Your task to perform on an android device: open app "HBO Max: Stream TV & Movies" (install if not already installed) Image 0: 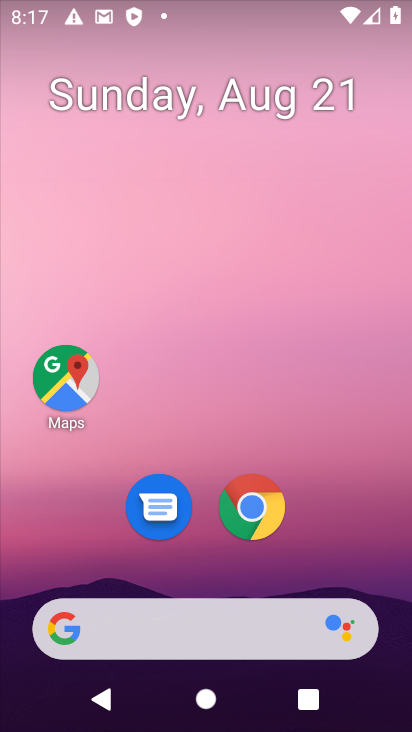
Step 0: drag from (229, 470) to (281, 11)
Your task to perform on an android device: open app "HBO Max: Stream TV & Movies" (install if not already installed) Image 1: 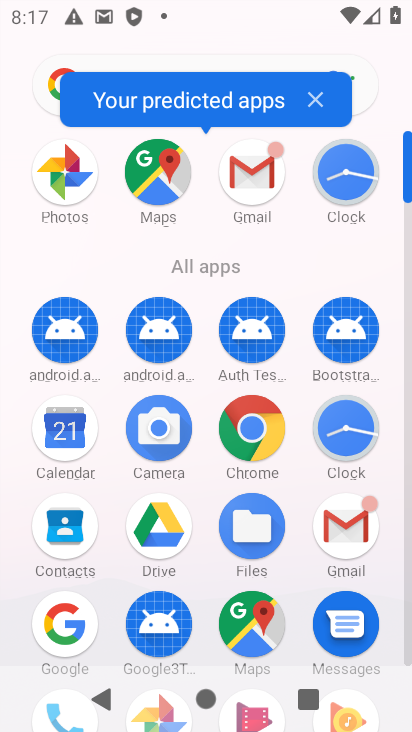
Step 1: drag from (116, 561) to (138, 352)
Your task to perform on an android device: open app "HBO Max: Stream TV & Movies" (install if not already installed) Image 2: 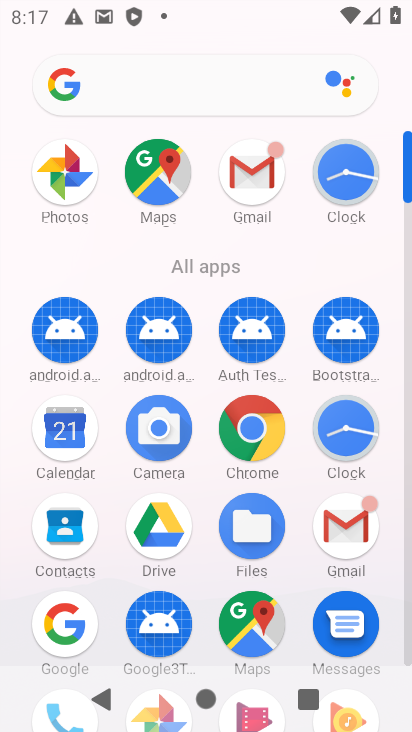
Step 2: drag from (113, 617) to (191, 0)
Your task to perform on an android device: open app "HBO Max: Stream TV & Movies" (install if not already installed) Image 3: 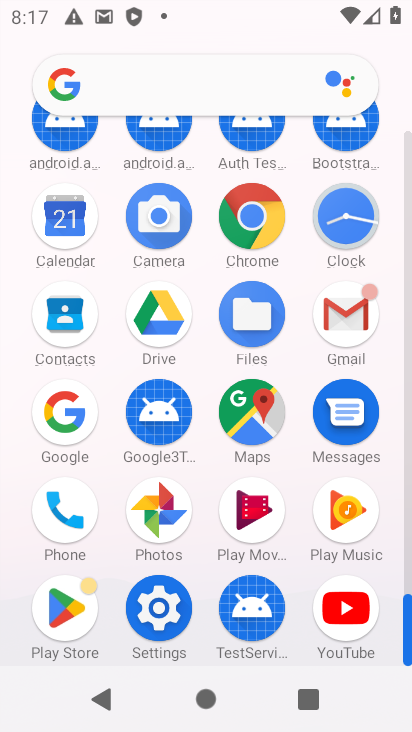
Step 3: click (70, 599)
Your task to perform on an android device: open app "HBO Max: Stream TV & Movies" (install if not already installed) Image 4: 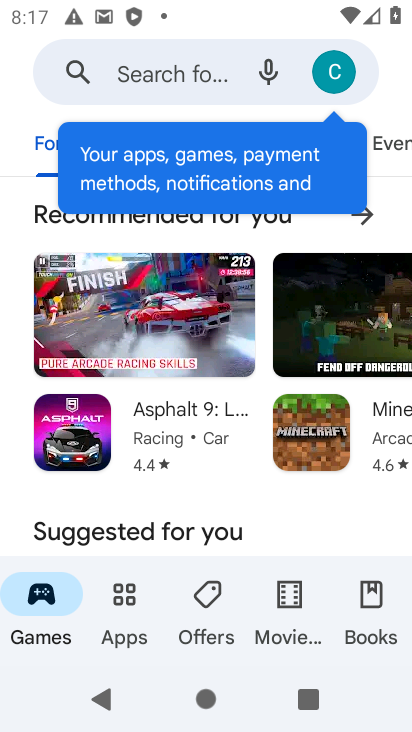
Step 4: click (153, 79)
Your task to perform on an android device: open app "HBO Max: Stream TV & Movies" (install if not already installed) Image 5: 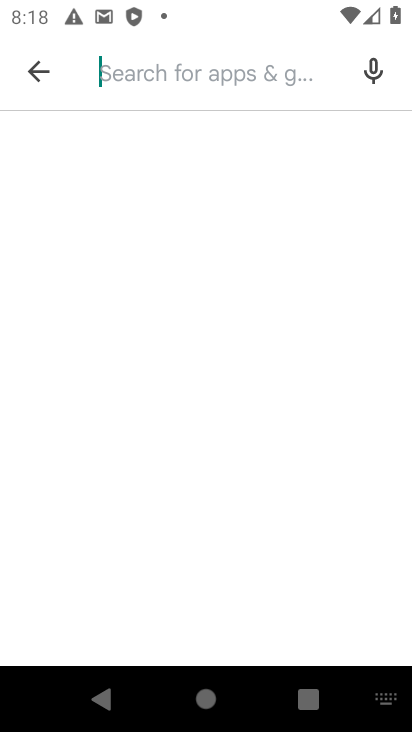
Step 5: type "HBO Max: Stream TV & Movies"
Your task to perform on an android device: open app "HBO Max: Stream TV & Movies" (install if not already installed) Image 6: 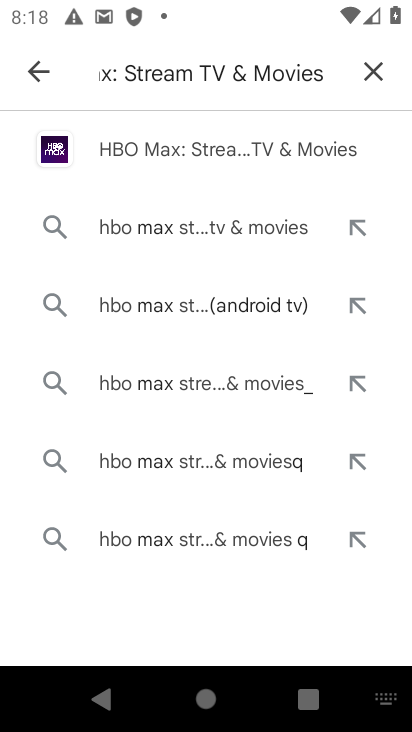
Step 6: click (242, 143)
Your task to perform on an android device: open app "HBO Max: Stream TV & Movies" (install if not already installed) Image 7: 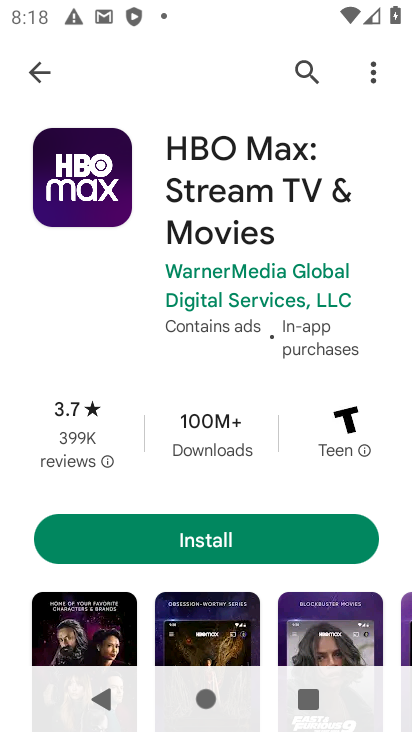
Step 7: click (214, 553)
Your task to perform on an android device: open app "HBO Max: Stream TV & Movies" (install if not already installed) Image 8: 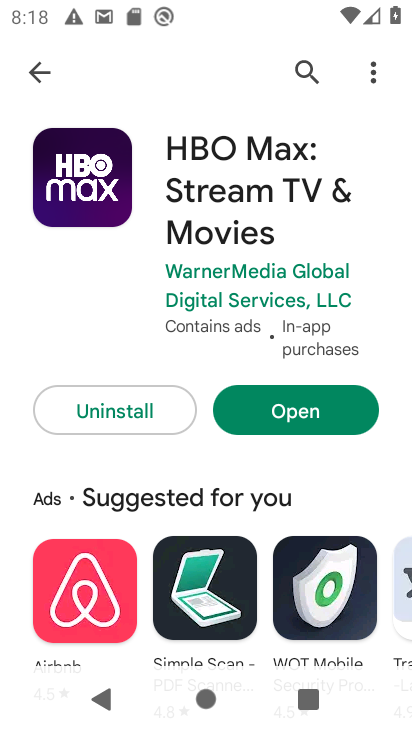
Step 8: click (281, 423)
Your task to perform on an android device: open app "HBO Max: Stream TV & Movies" (install if not already installed) Image 9: 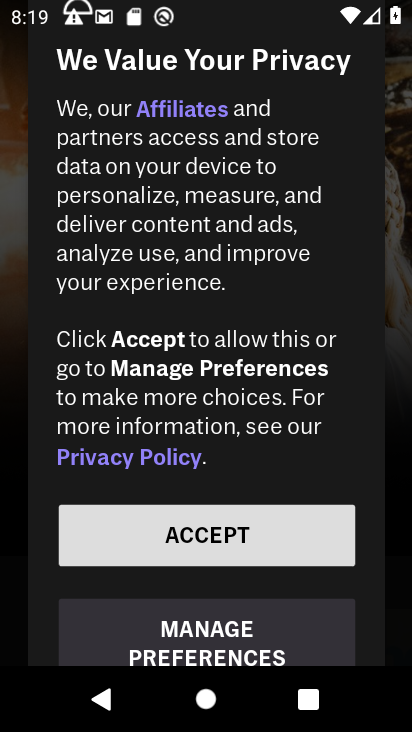
Step 9: task complete